Your task to perform on an android device: Open Youtube and go to "Your channel" Image 0: 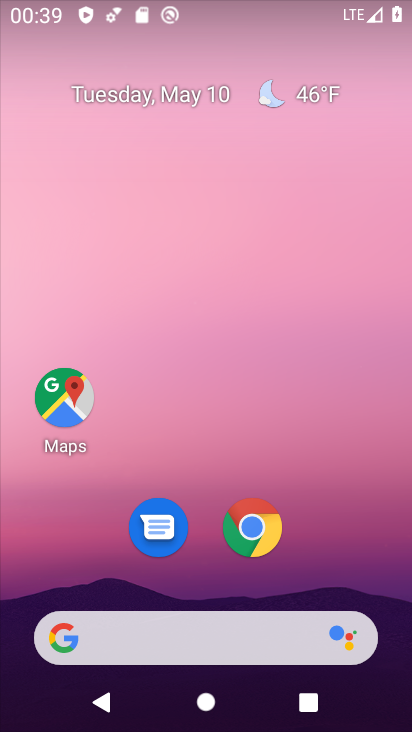
Step 0: drag from (342, 552) to (161, 188)
Your task to perform on an android device: Open Youtube and go to "Your channel" Image 1: 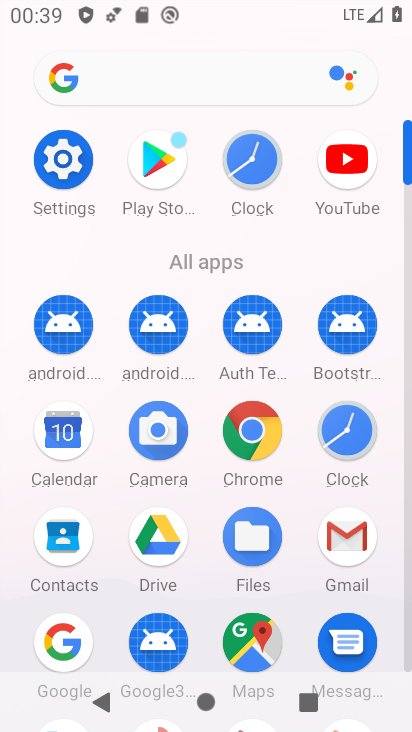
Step 1: click (346, 172)
Your task to perform on an android device: Open Youtube and go to "Your channel" Image 2: 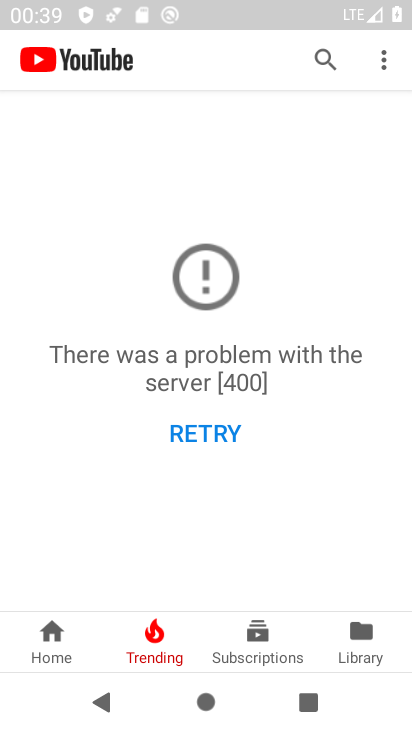
Step 2: click (367, 636)
Your task to perform on an android device: Open Youtube and go to "Your channel" Image 3: 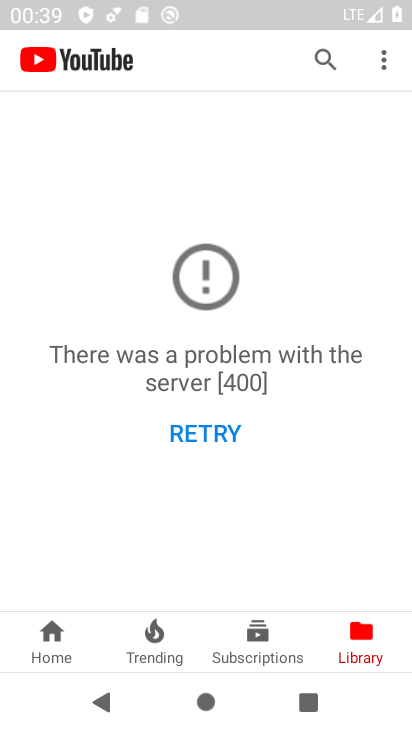
Step 3: click (389, 47)
Your task to perform on an android device: Open Youtube and go to "Your channel" Image 4: 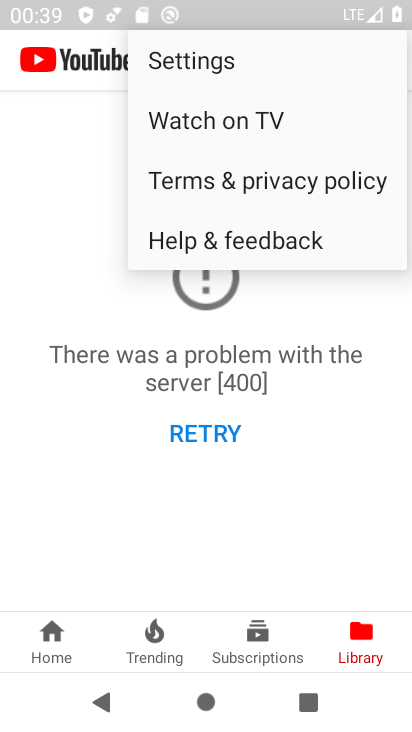
Step 4: click (271, 469)
Your task to perform on an android device: Open Youtube and go to "Your channel" Image 5: 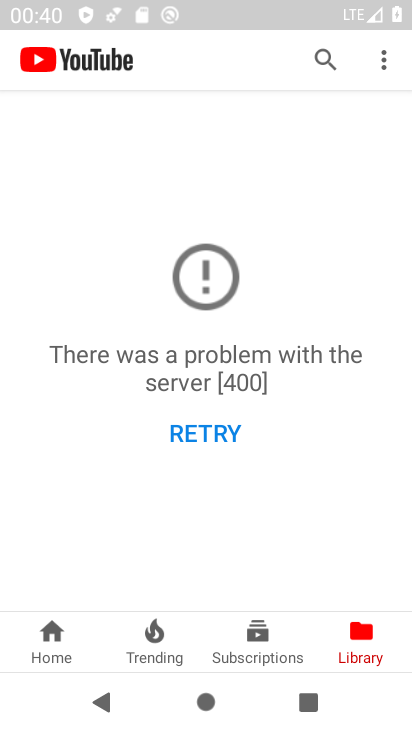
Step 5: task complete